Your task to perform on an android device: Clear the shopping cart on costco.com. Image 0: 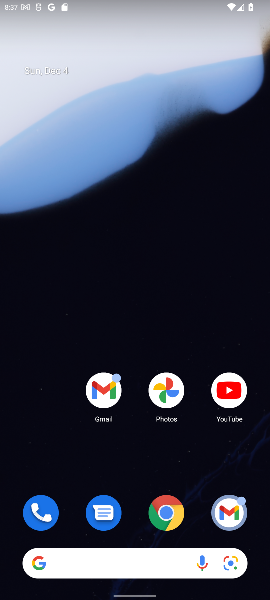
Step 0: click (182, 515)
Your task to perform on an android device: Clear the shopping cart on costco.com. Image 1: 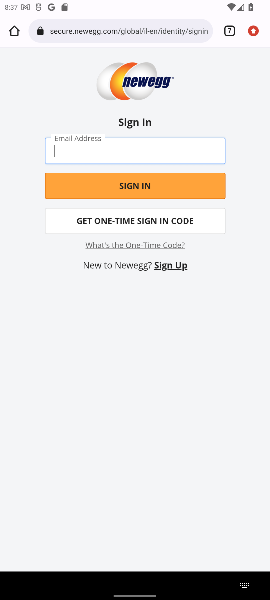
Step 1: click (232, 30)
Your task to perform on an android device: Clear the shopping cart on costco.com. Image 2: 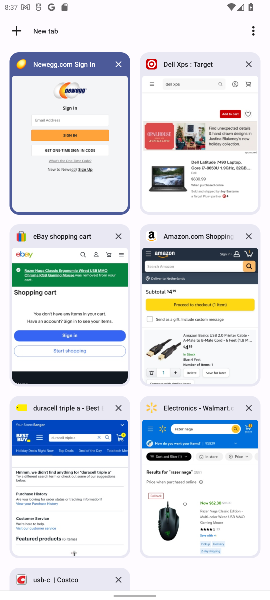
Step 2: click (79, 577)
Your task to perform on an android device: Clear the shopping cart on costco.com. Image 3: 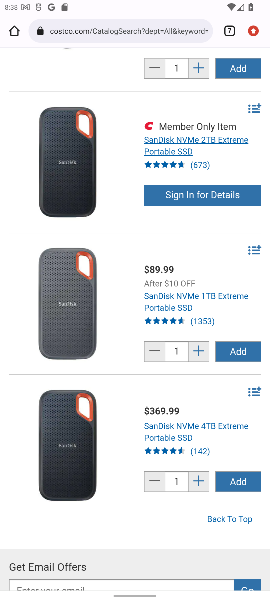
Step 3: drag from (101, 87) to (239, 599)
Your task to perform on an android device: Clear the shopping cart on costco.com. Image 4: 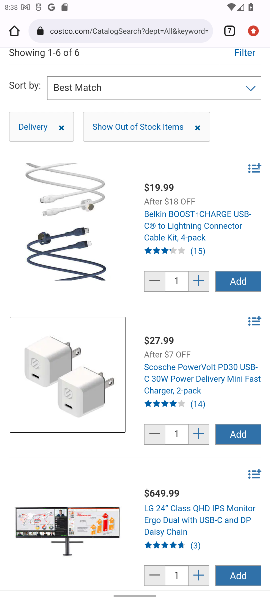
Step 4: drag from (161, 245) to (153, 449)
Your task to perform on an android device: Clear the shopping cart on costco.com. Image 5: 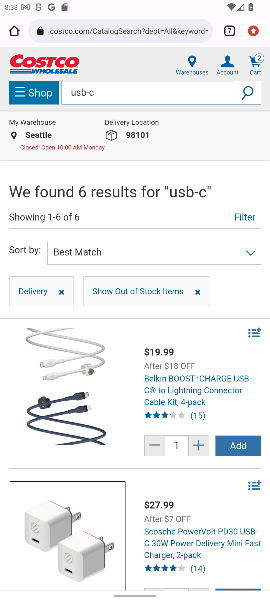
Step 5: click (250, 64)
Your task to perform on an android device: Clear the shopping cart on costco.com. Image 6: 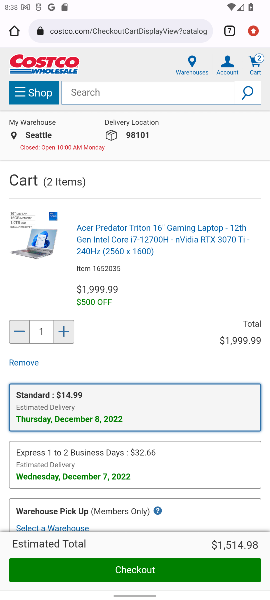
Step 6: click (19, 361)
Your task to perform on an android device: Clear the shopping cart on costco.com. Image 7: 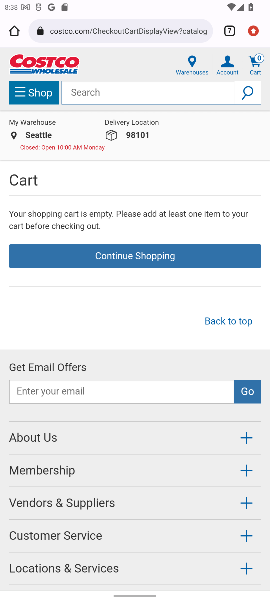
Step 7: task complete